Your task to perform on an android device: Add "razer blade" to the cart on walmart.com, then select checkout. Image 0: 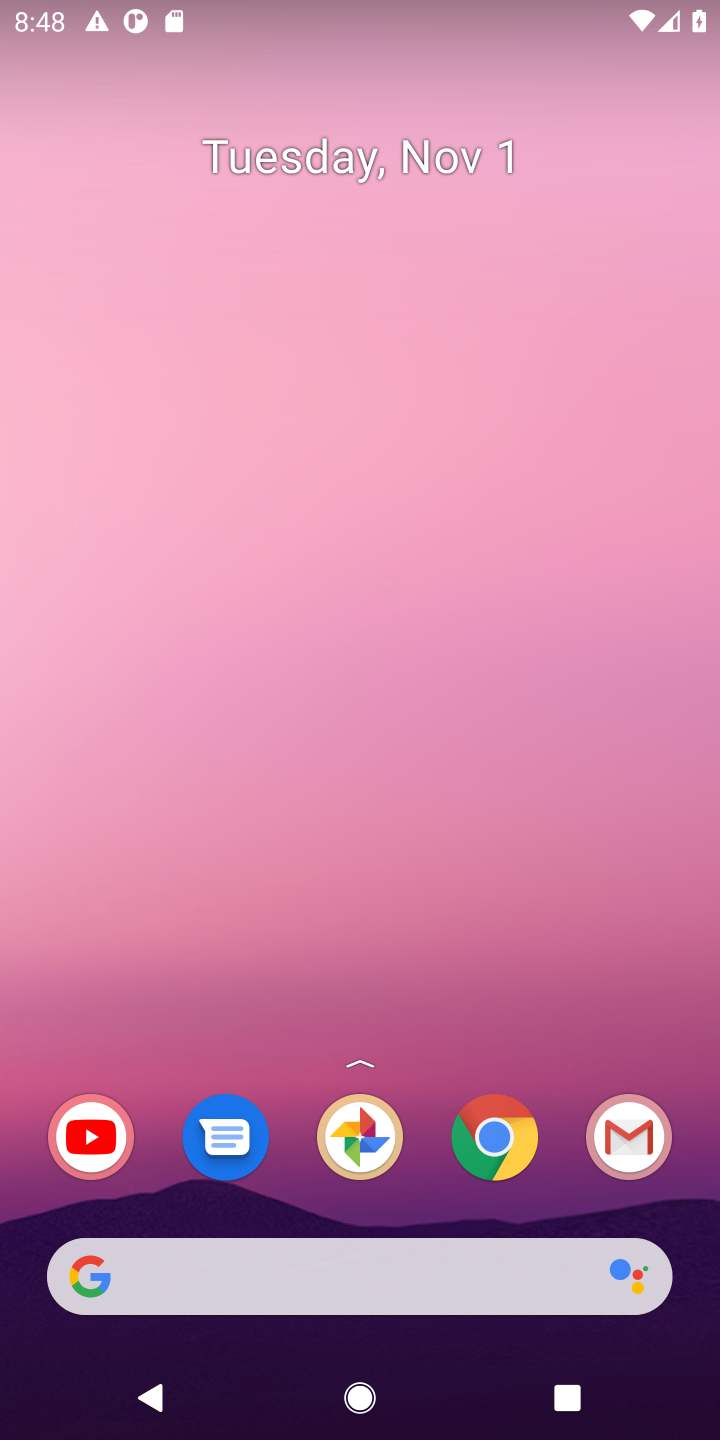
Step 0: click (329, 1275)
Your task to perform on an android device: Add "razer blade" to the cart on walmart.com, then select checkout. Image 1: 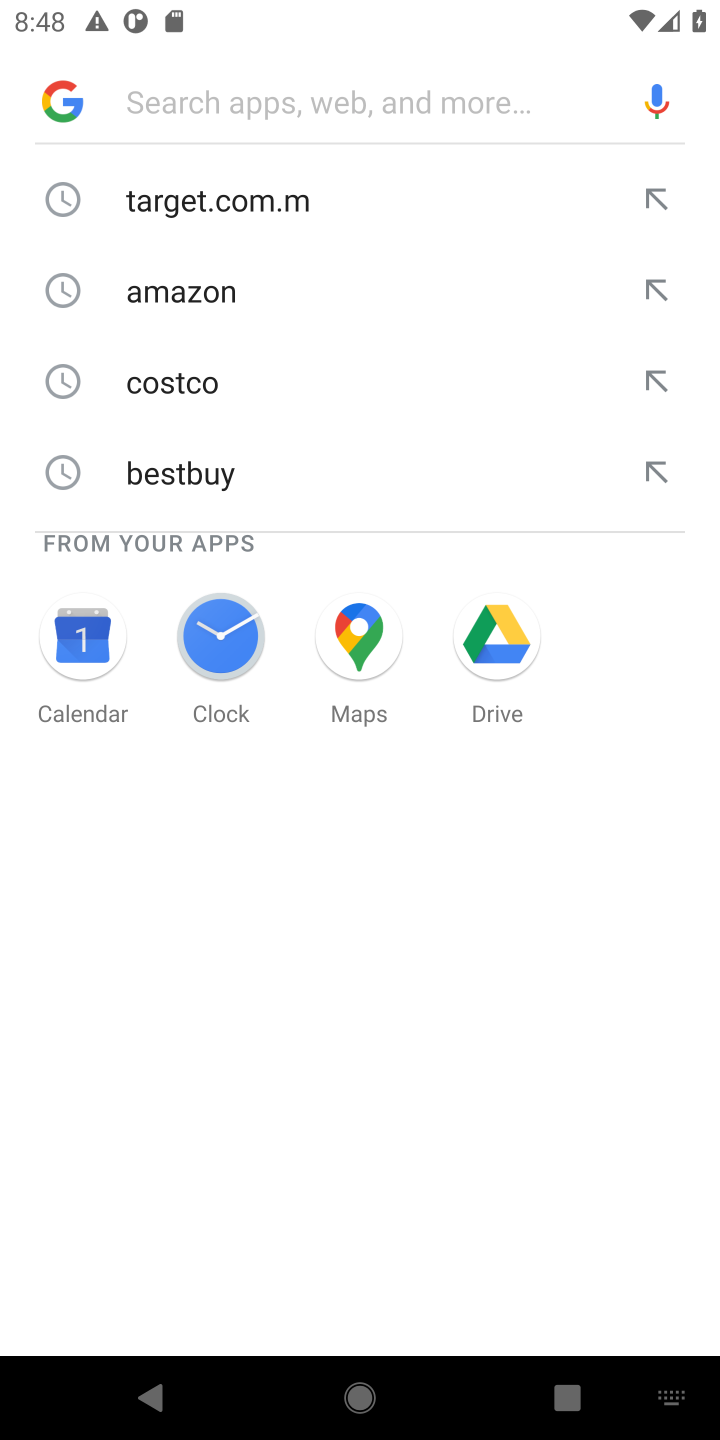
Step 1: type "walmart.com,"
Your task to perform on an android device: Add "razer blade" to the cart on walmart.com, then select checkout. Image 2: 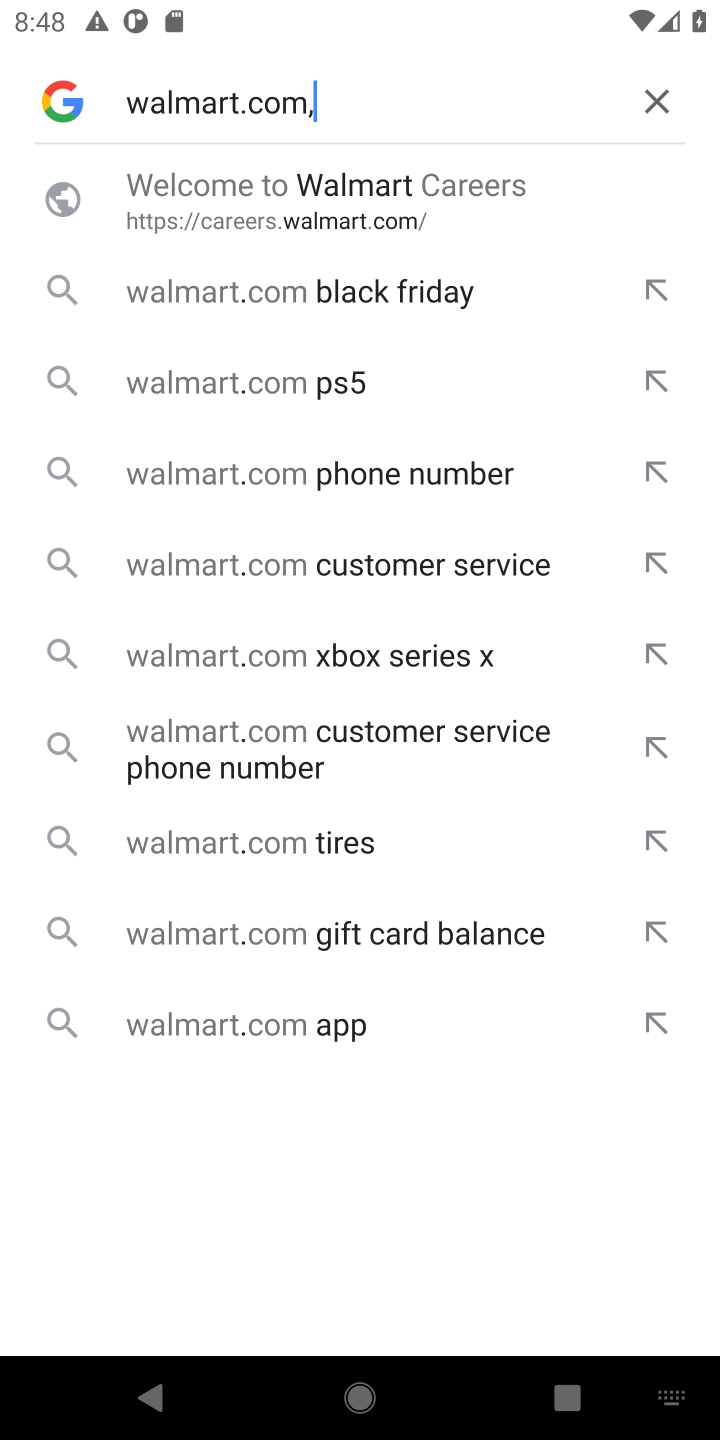
Step 2: click (376, 184)
Your task to perform on an android device: Add "razer blade" to the cart on walmart.com, then select checkout. Image 3: 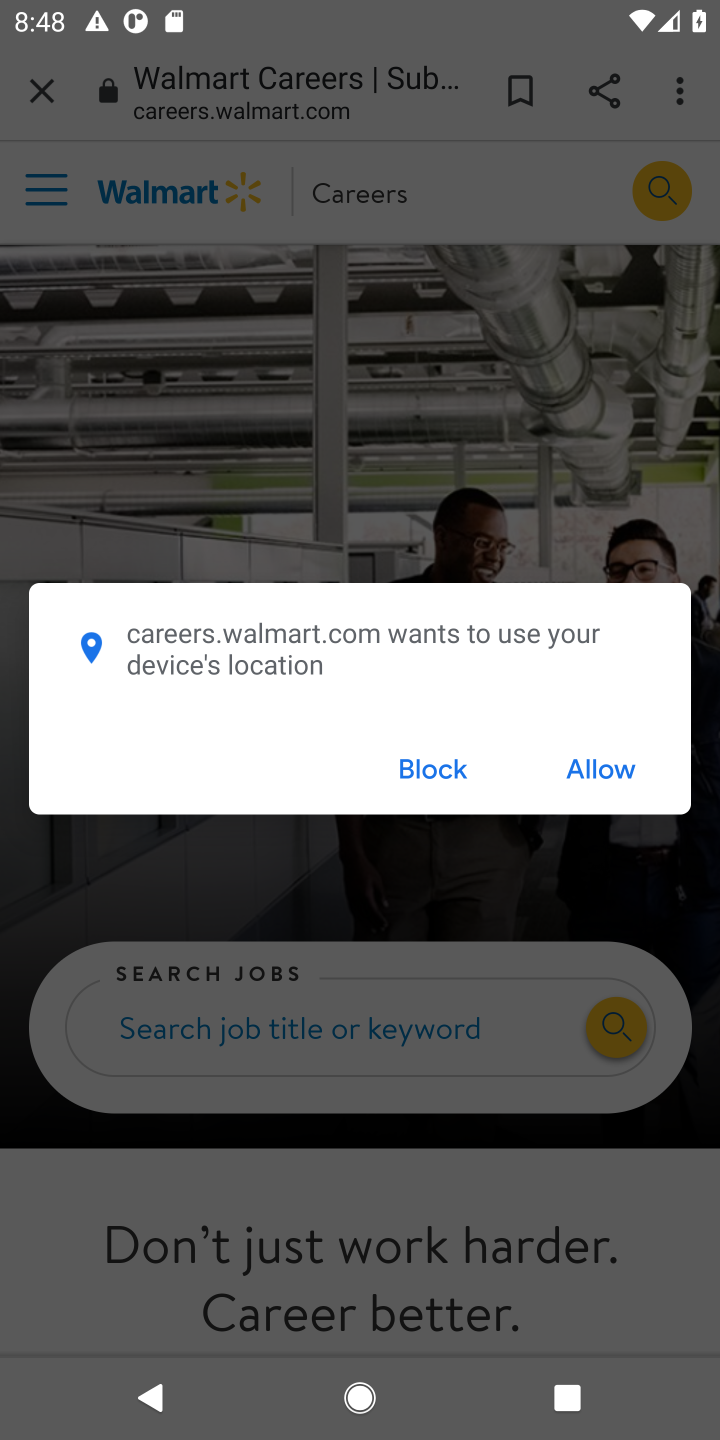
Step 3: click (449, 745)
Your task to perform on an android device: Add "razer blade" to the cart on walmart.com, then select checkout. Image 4: 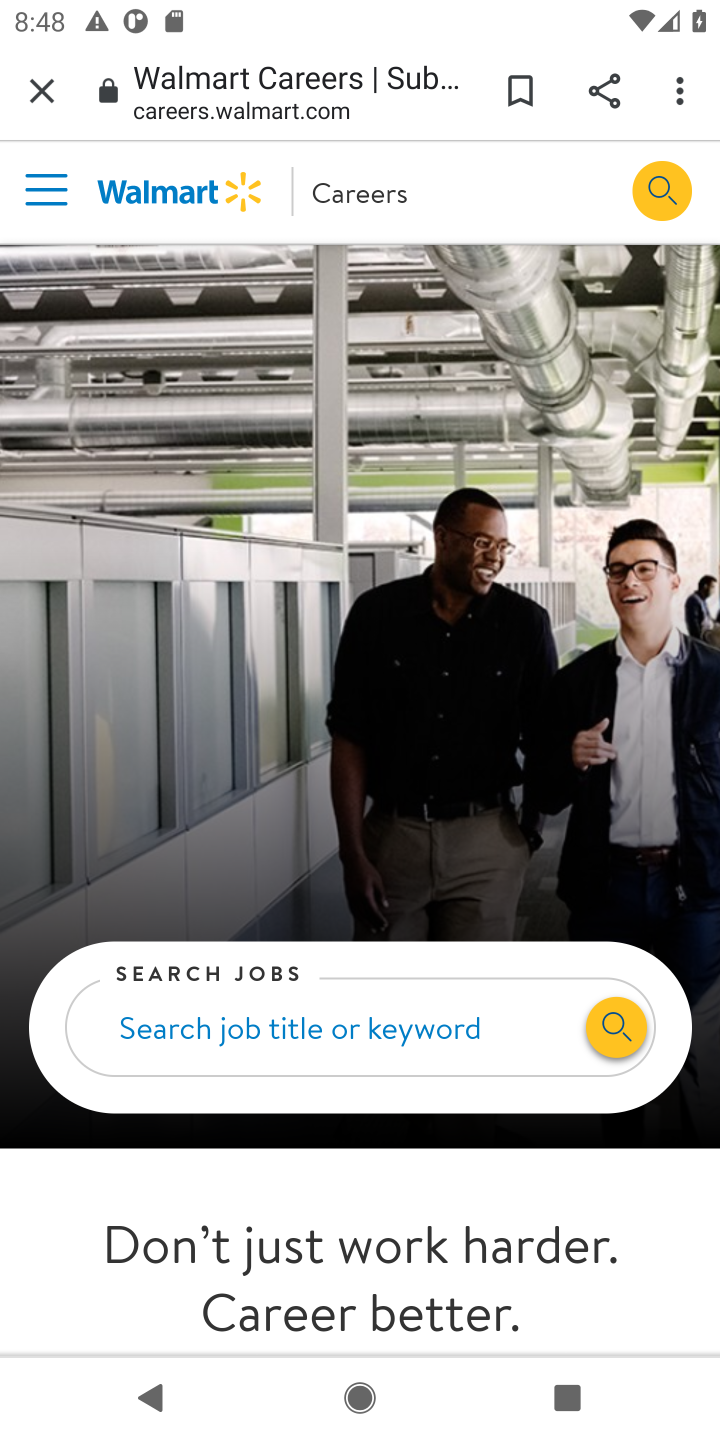
Step 4: press back button
Your task to perform on an android device: Add "razer blade" to the cart on walmart.com, then select checkout. Image 5: 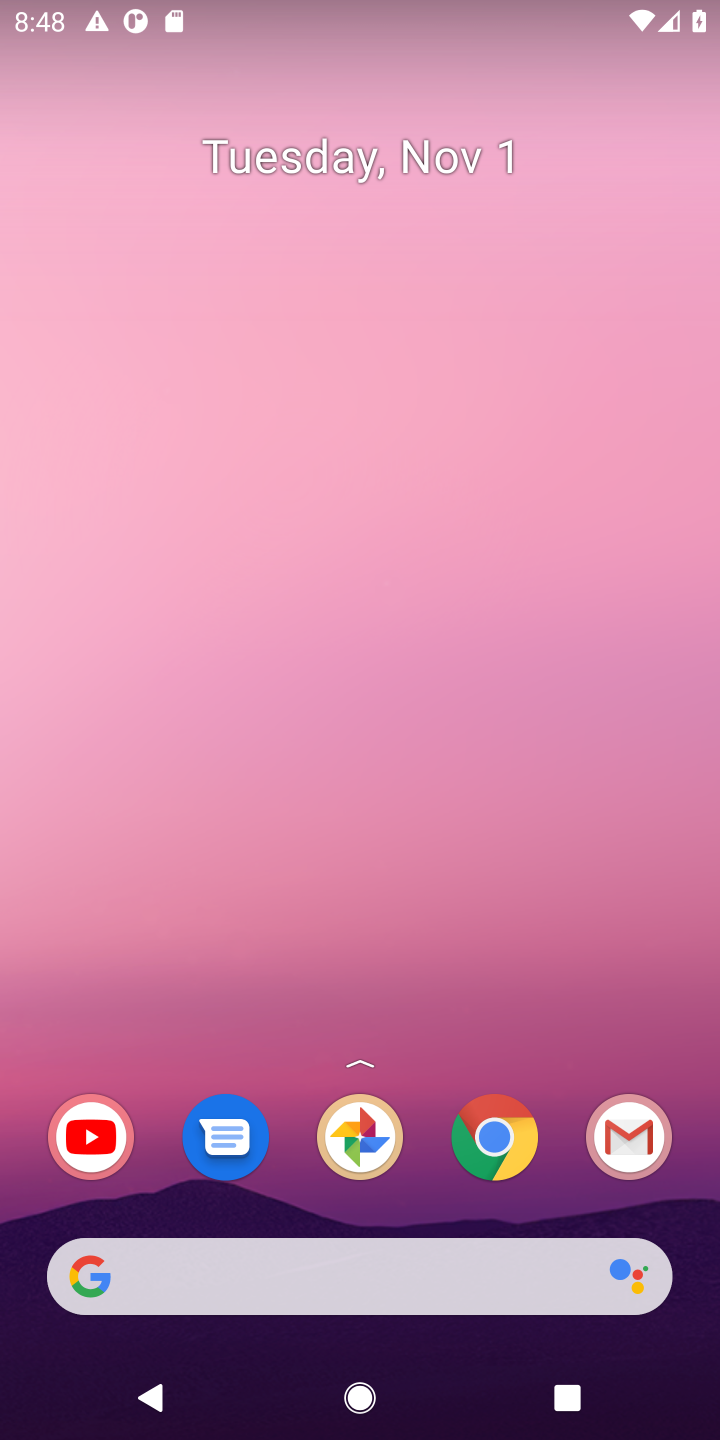
Step 5: click (355, 1268)
Your task to perform on an android device: Add "razer blade" to the cart on walmart.com, then select checkout. Image 6: 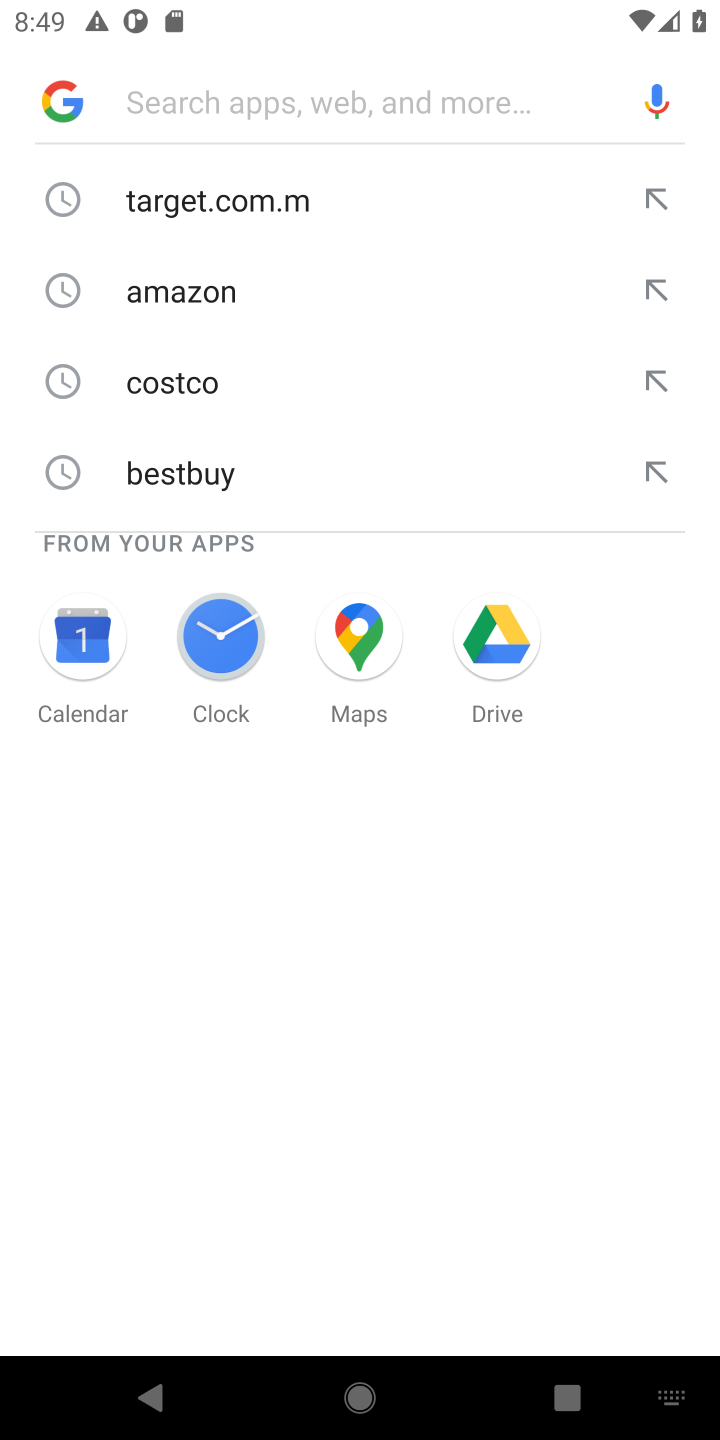
Step 6: type "walmart.com,"
Your task to perform on an android device: Add "razer blade" to the cart on walmart.com, then select checkout. Image 7: 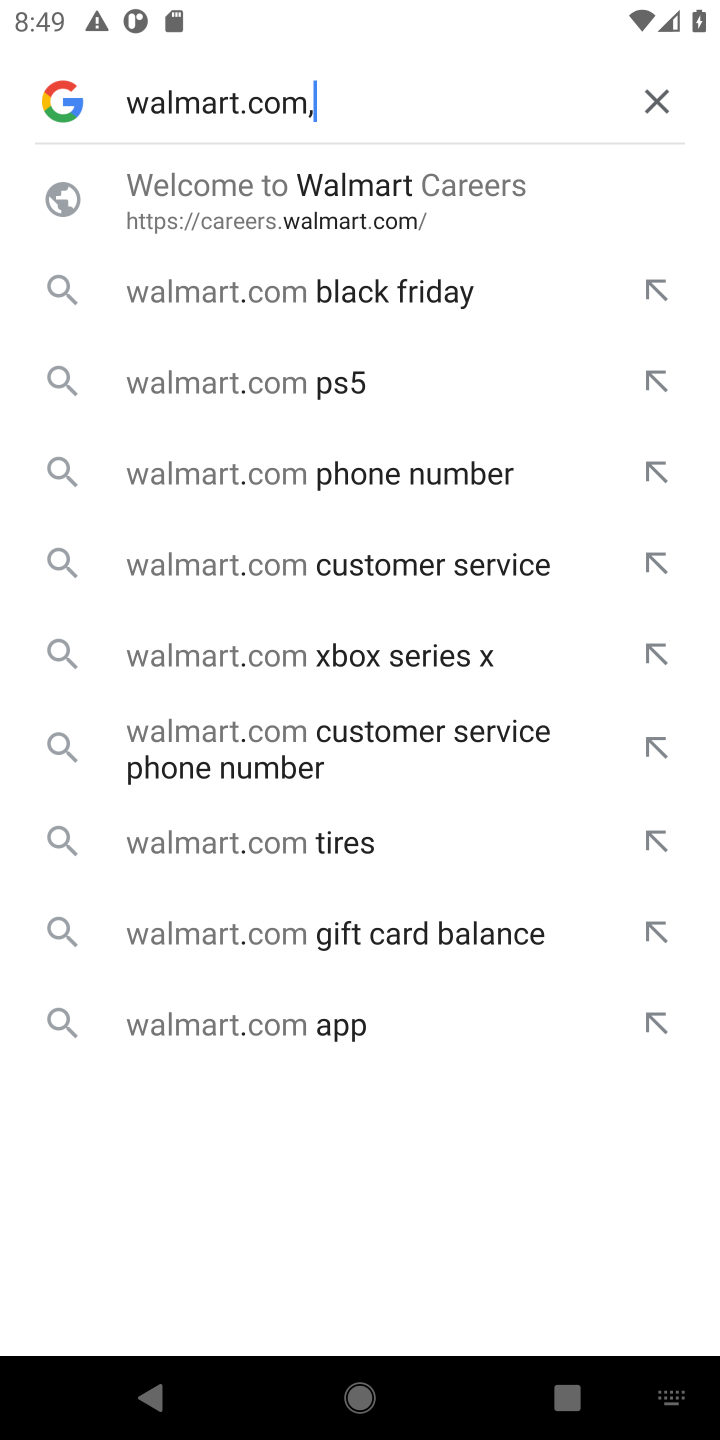
Step 7: type "walmart.com"
Your task to perform on an android device: Add "razer blade" to the cart on walmart.com, then select checkout. Image 8: 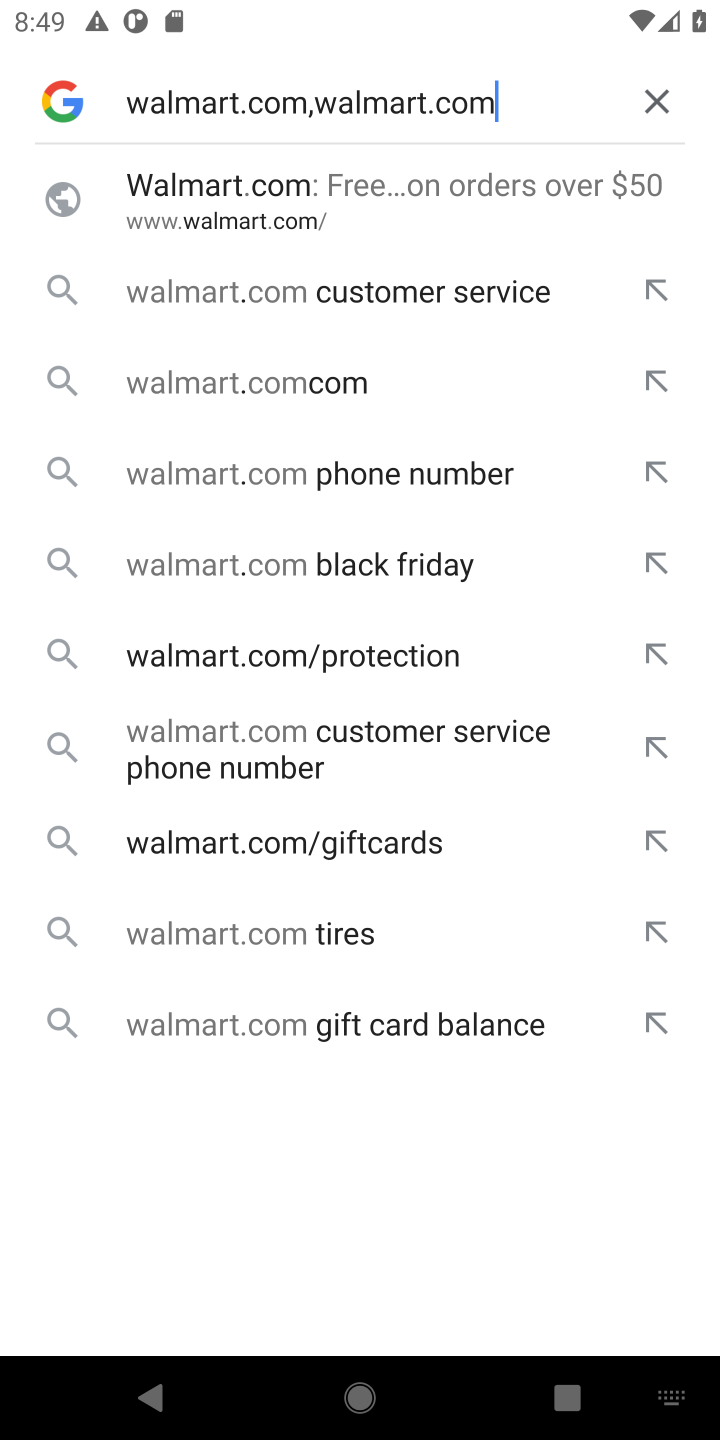
Step 8: click (633, 88)
Your task to perform on an android device: Add "razer blade" to the cart on walmart.com, then select checkout. Image 9: 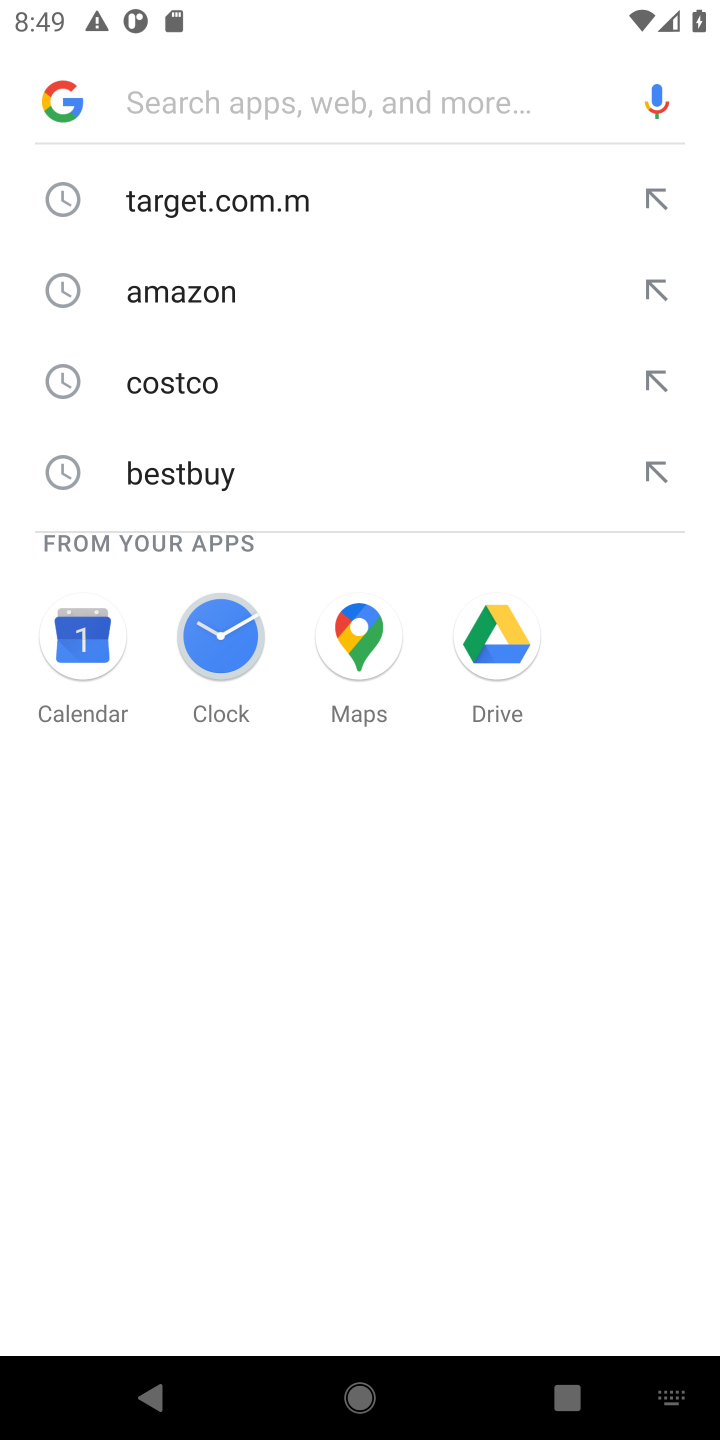
Step 9: type "walmart.com"
Your task to perform on an android device: Add "razer blade" to the cart on walmart.com, then select checkout. Image 10: 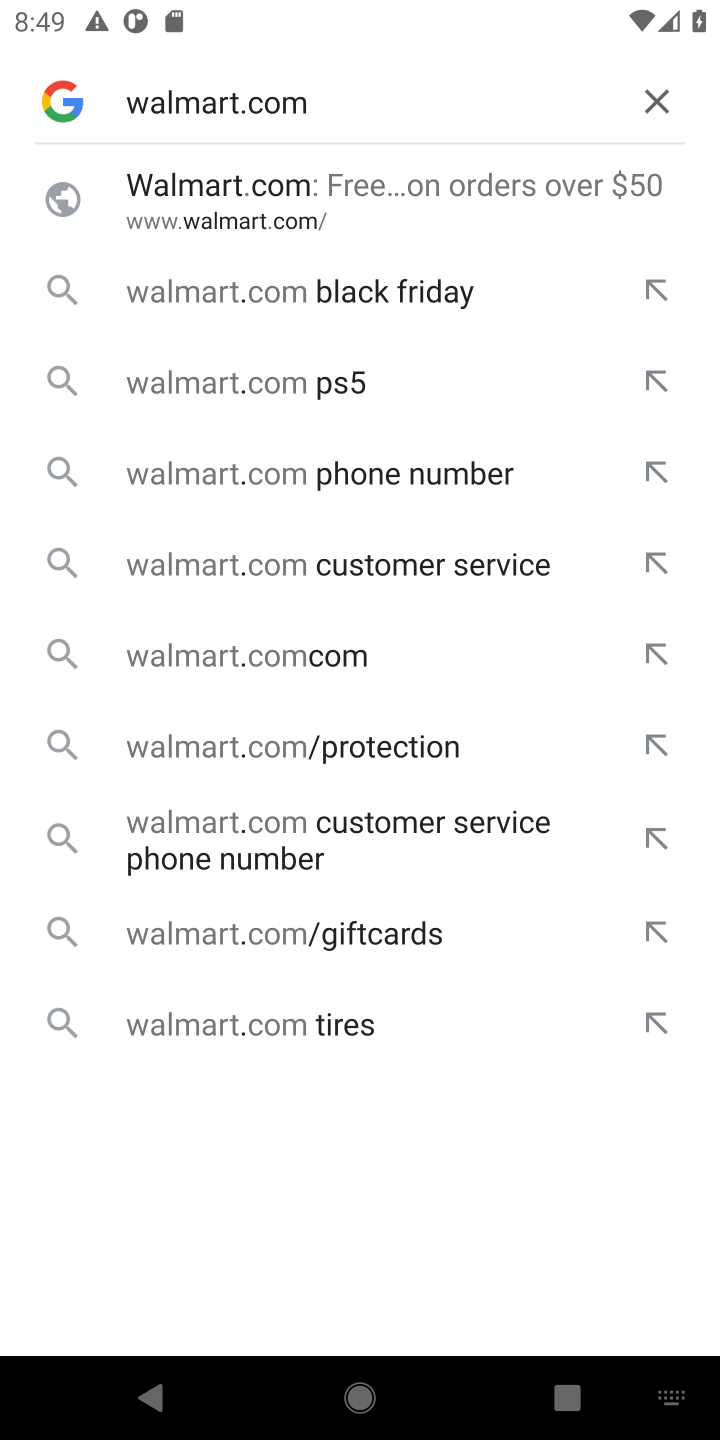
Step 10: click (250, 184)
Your task to perform on an android device: Add "razer blade" to the cart on walmart.com, then select checkout. Image 11: 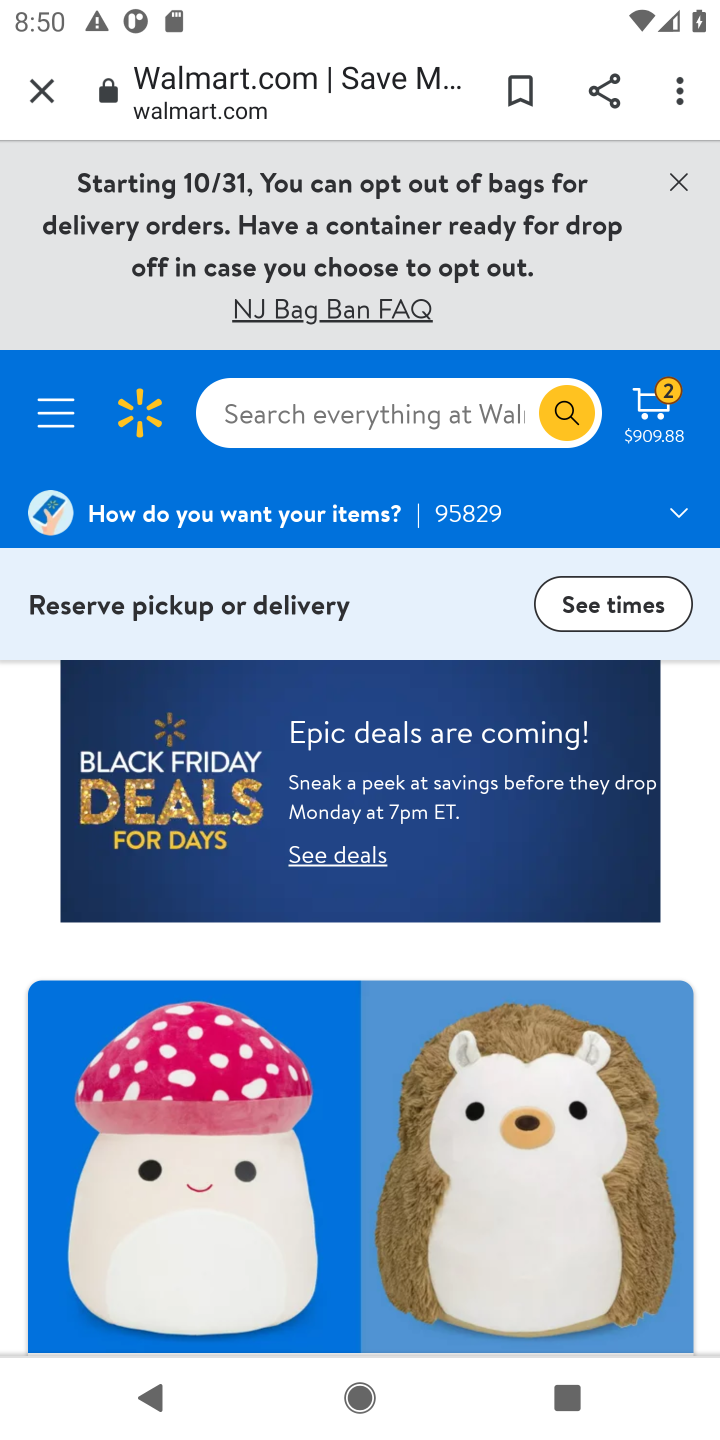
Step 11: click (297, 419)
Your task to perform on an android device: Add "razer blade" to the cart on walmart.com, then select checkout. Image 12: 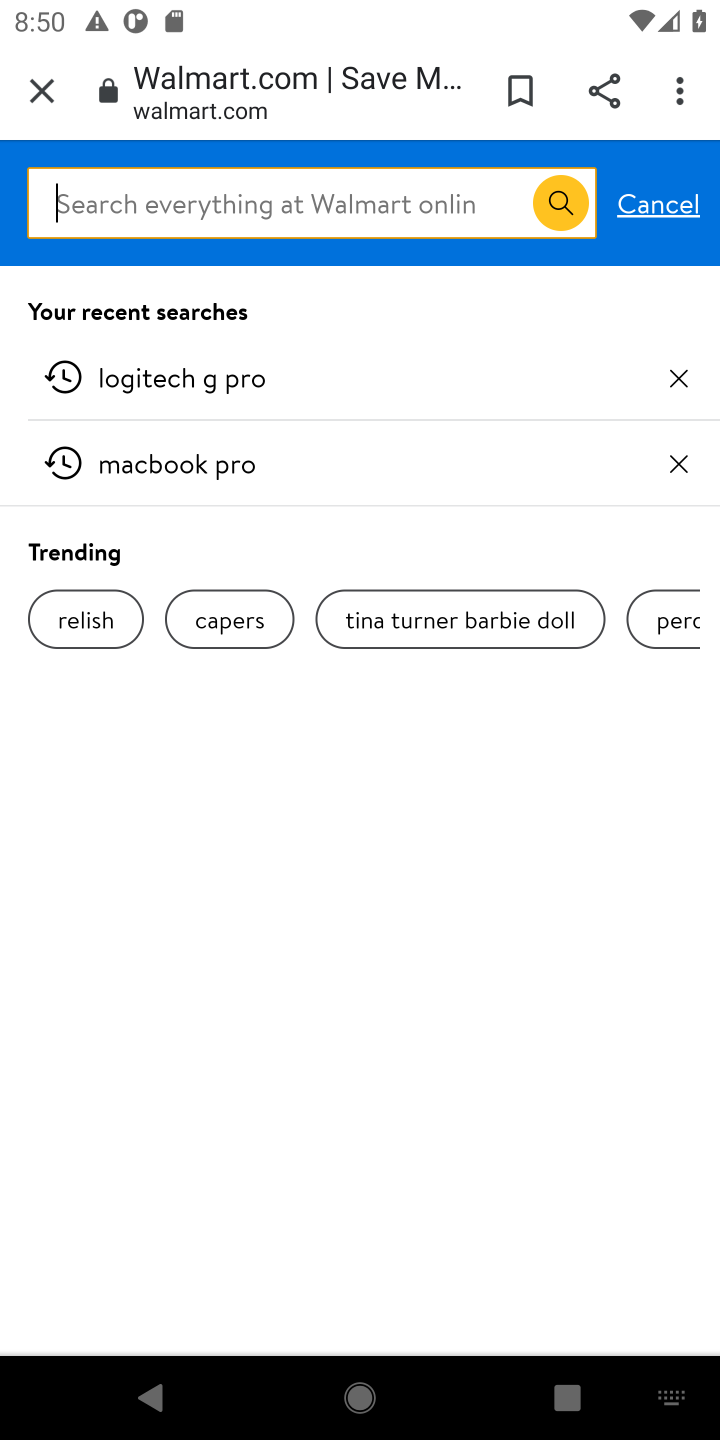
Step 12: type "razer blade"
Your task to perform on an android device: Add "razer blade" to the cart on walmart.com, then select checkout. Image 13: 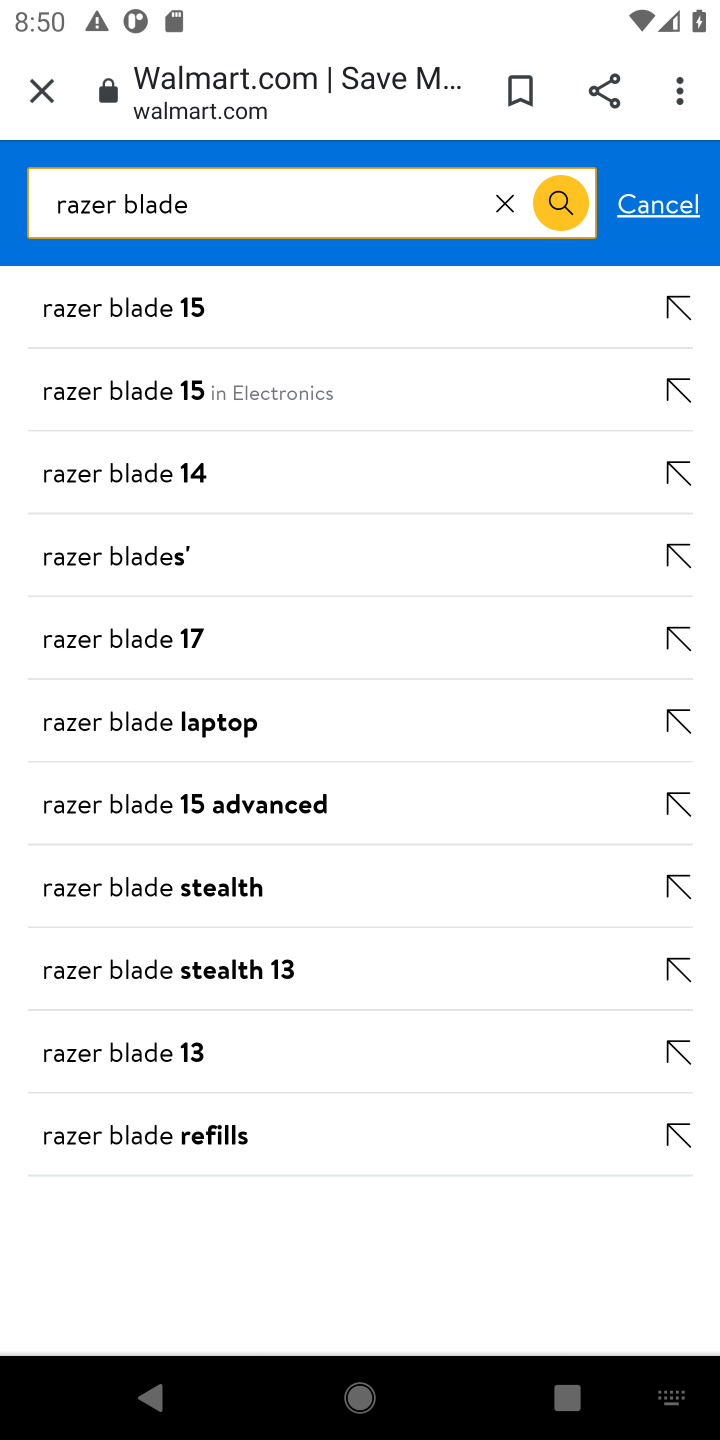
Step 13: click (191, 546)
Your task to perform on an android device: Add "razer blade" to the cart on walmart.com, then select checkout. Image 14: 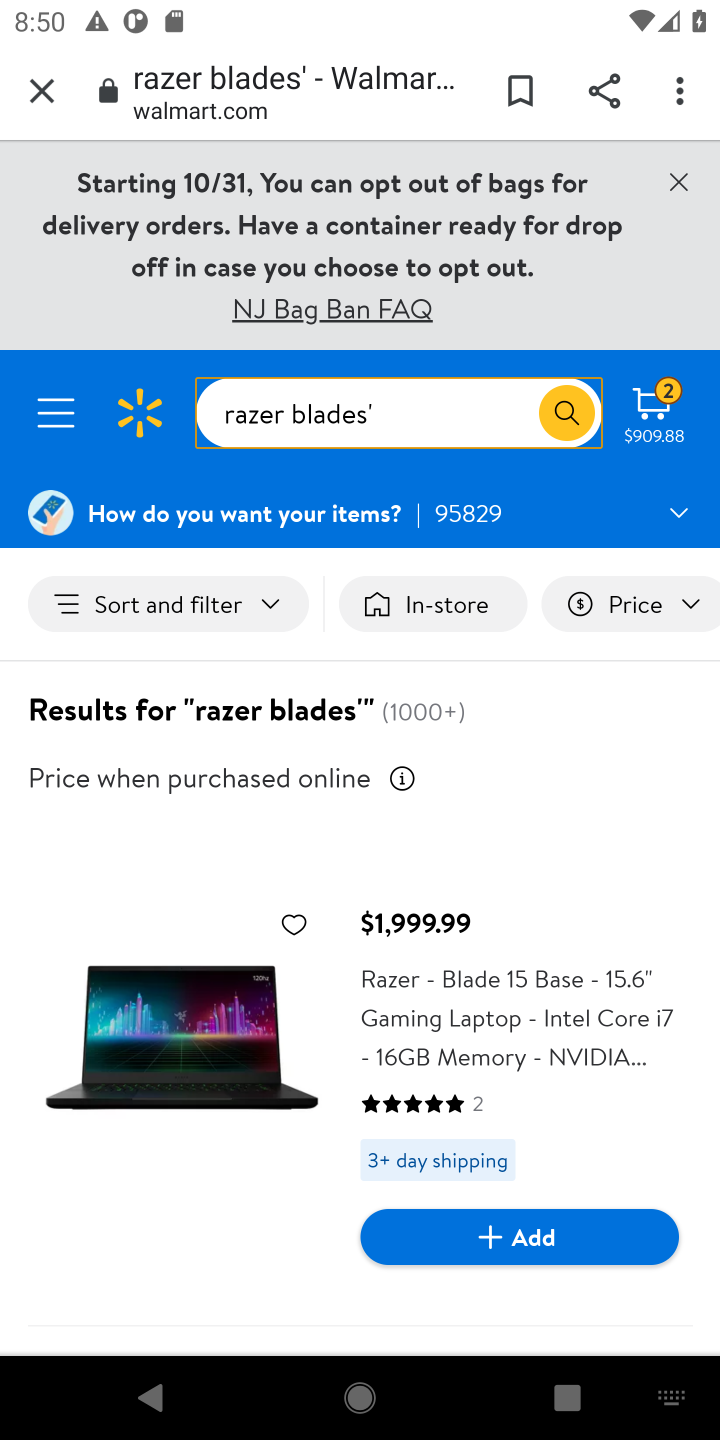
Step 14: click (494, 1235)
Your task to perform on an android device: Add "razer blade" to the cart on walmart.com, then select checkout. Image 15: 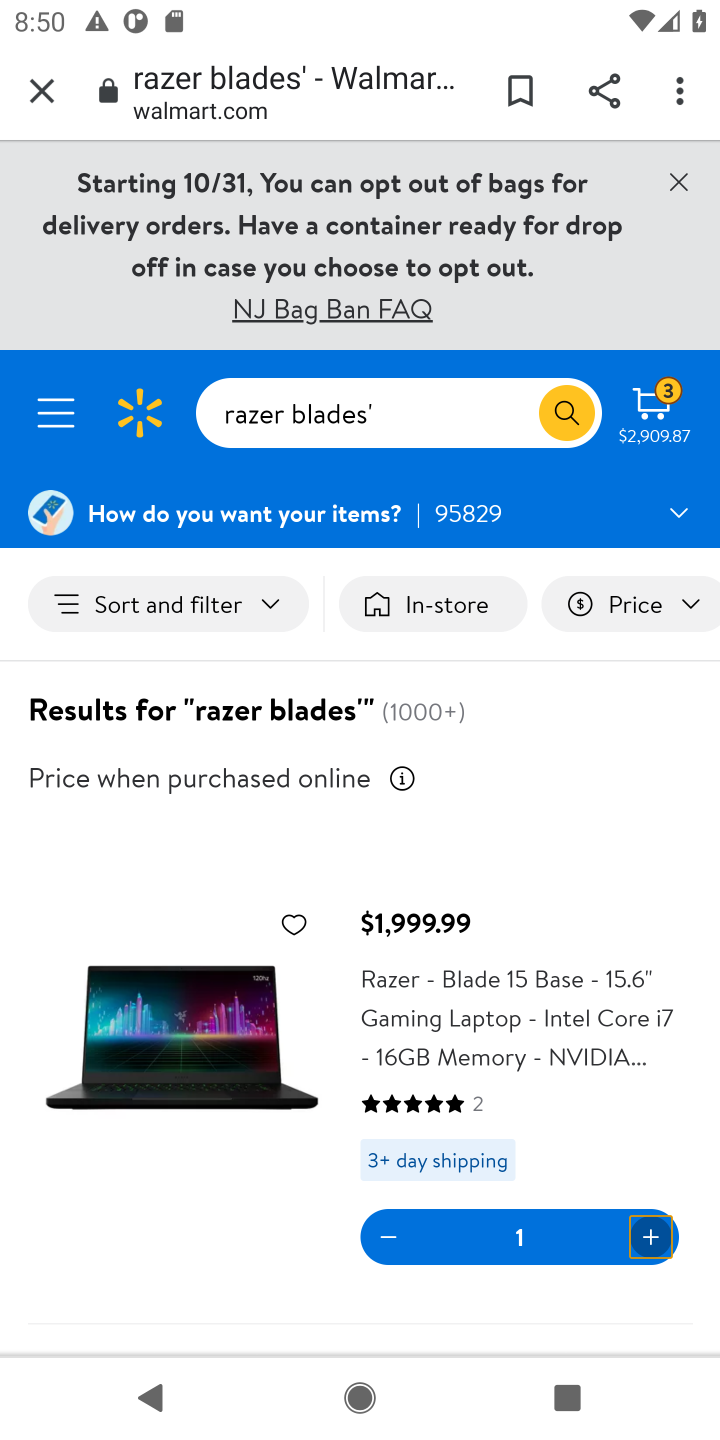
Step 15: click (670, 390)
Your task to perform on an android device: Add "razer blade" to the cart on walmart.com, then select checkout. Image 16: 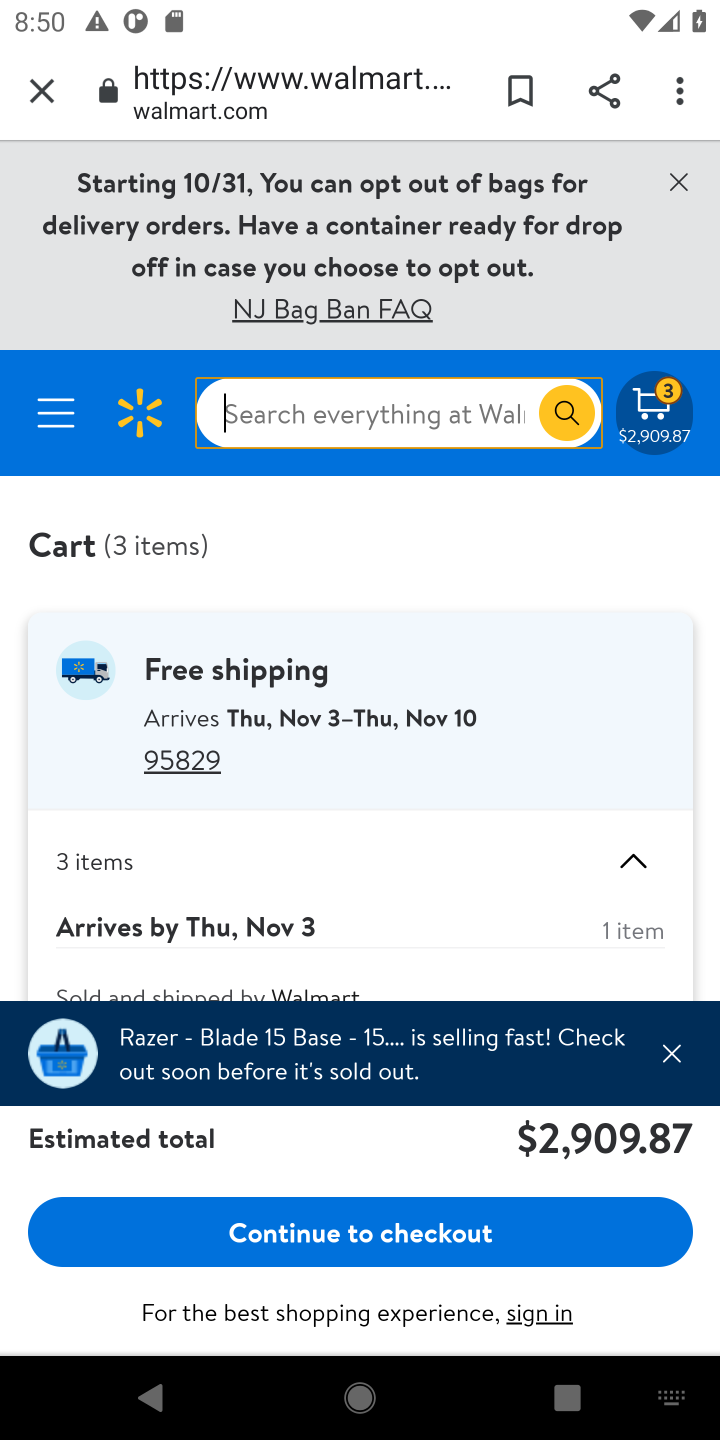
Step 16: click (671, 417)
Your task to perform on an android device: Add "razer blade" to the cart on walmart.com, then select checkout. Image 17: 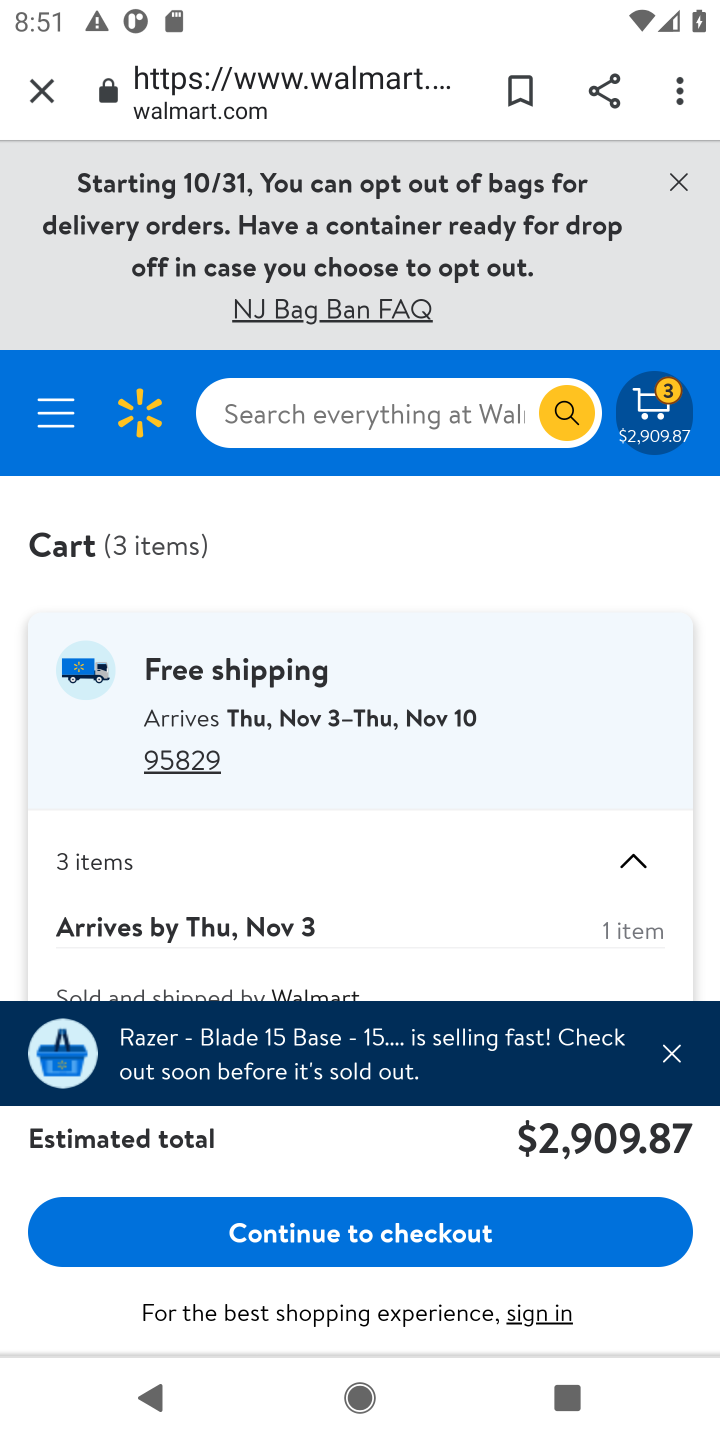
Step 17: click (370, 1221)
Your task to perform on an android device: Add "razer blade" to the cart on walmart.com, then select checkout. Image 18: 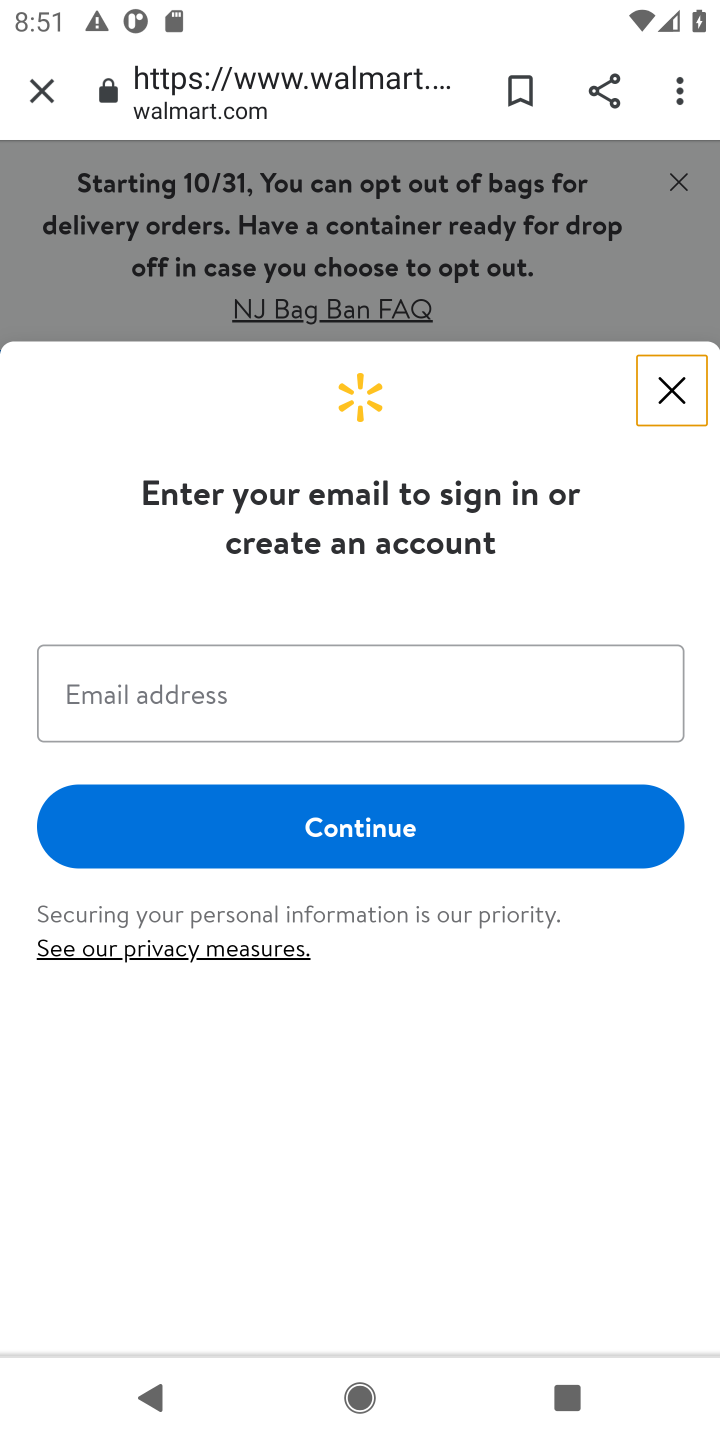
Step 18: task complete